Your task to perform on an android device: Open Google Maps and go to "Timeline" Image 0: 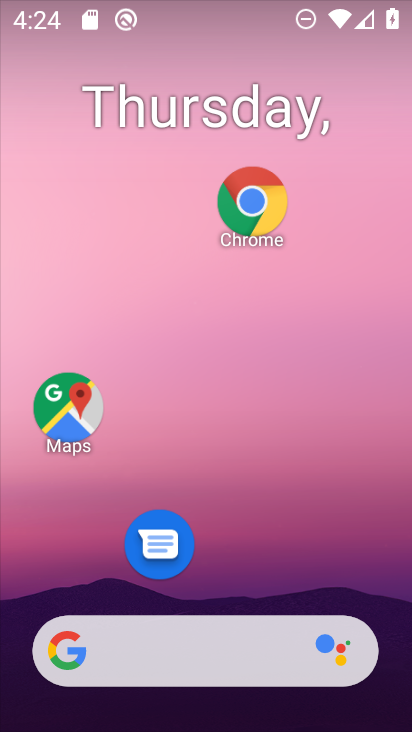
Step 0: click (37, 416)
Your task to perform on an android device: Open Google Maps and go to "Timeline" Image 1: 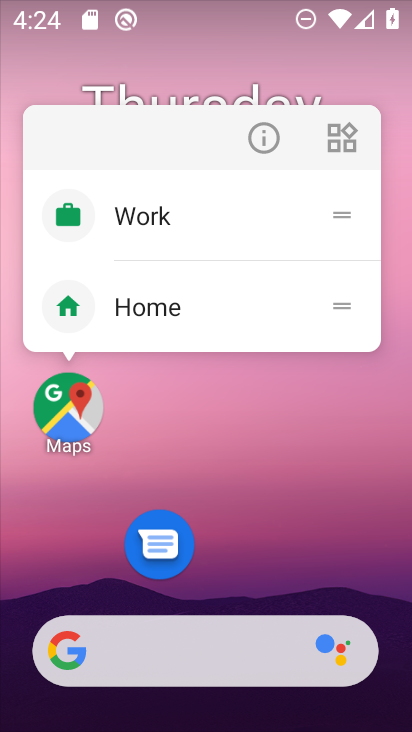
Step 1: click (37, 416)
Your task to perform on an android device: Open Google Maps and go to "Timeline" Image 2: 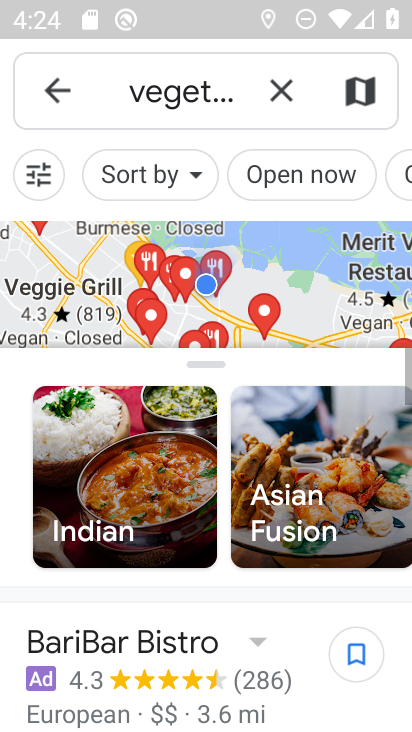
Step 2: press back button
Your task to perform on an android device: Open Google Maps and go to "Timeline" Image 3: 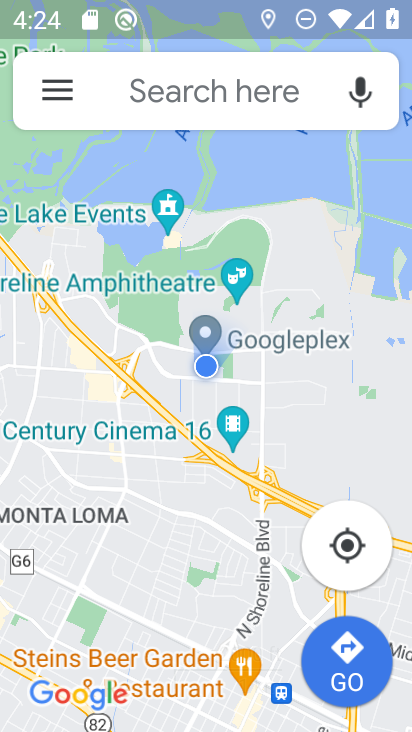
Step 3: click (75, 86)
Your task to perform on an android device: Open Google Maps and go to "Timeline" Image 4: 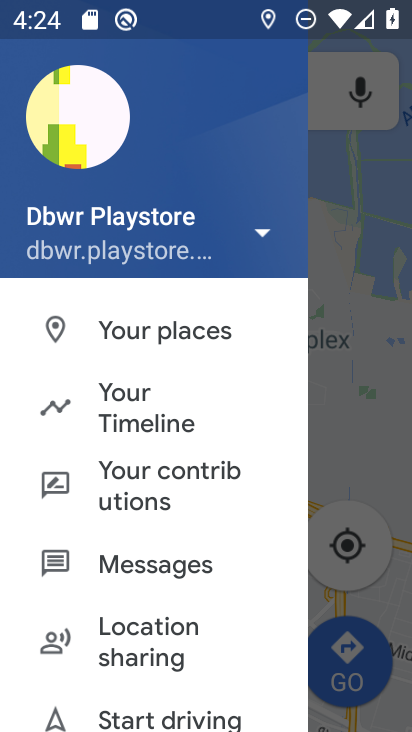
Step 4: drag from (196, 667) to (191, 395)
Your task to perform on an android device: Open Google Maps and go to "Timeline" Image 5: 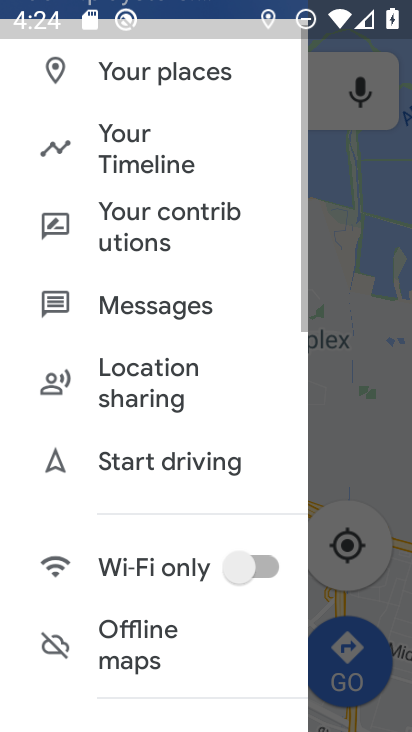
Step 5: click (187, 392)
Your task to perform on an android device: Open Google Maps and go to "Timeline" Image 6: 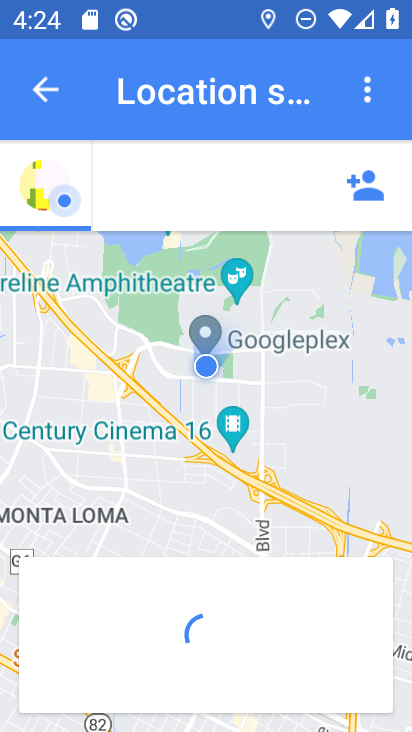
Step 6: press back button
Your task to perform on an android device: Open Google Maps and go to "Timeline" Image 7: 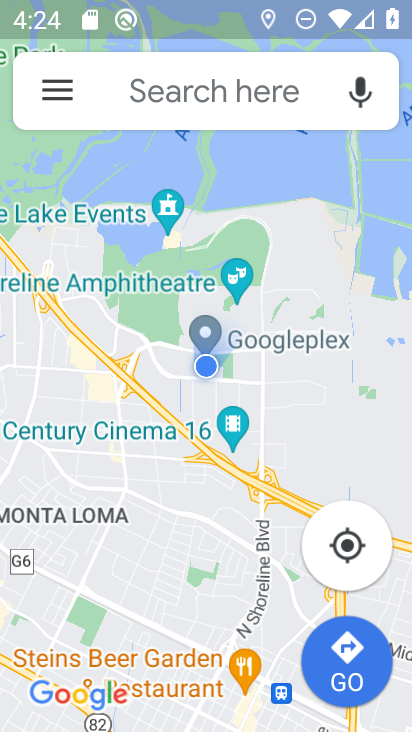
Step 7: click (61, 91)
Your task to perform on an android device: Open Google Maps and go to "Timeline" Image 8: 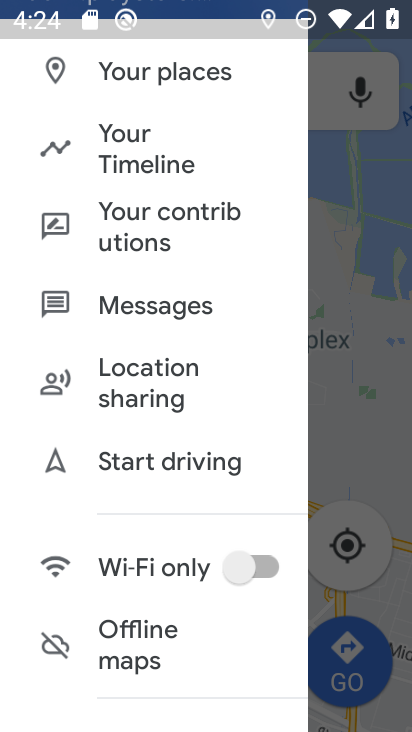
Step 8: click (173, 166)
Your task to perform on an android device: Open Google Maps and go to "Timeline" Image 9: 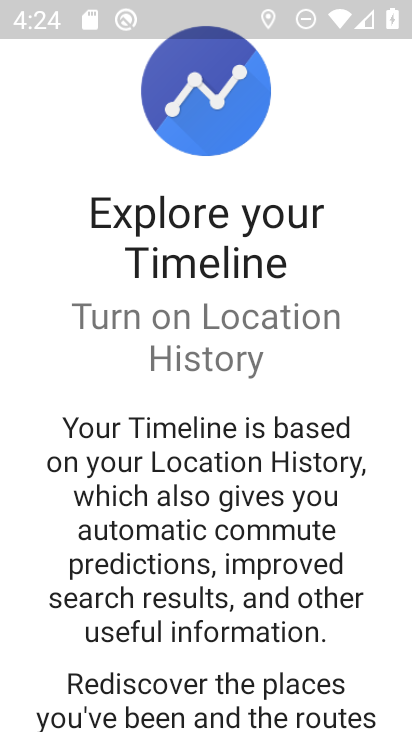
Step 9: task complete